Your task to perform on an android device: Do I have any events this weekend? Image 0: 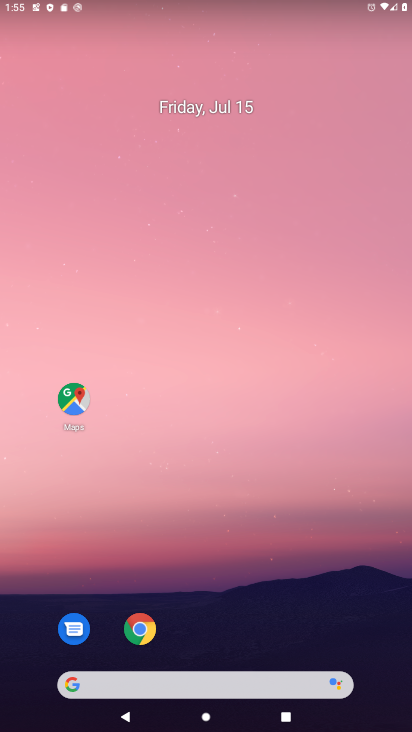
Step 0: drag from (282, 554) to (256, 60)
Your task to perform on an android device: Do I have any events this weekend? Image 1: 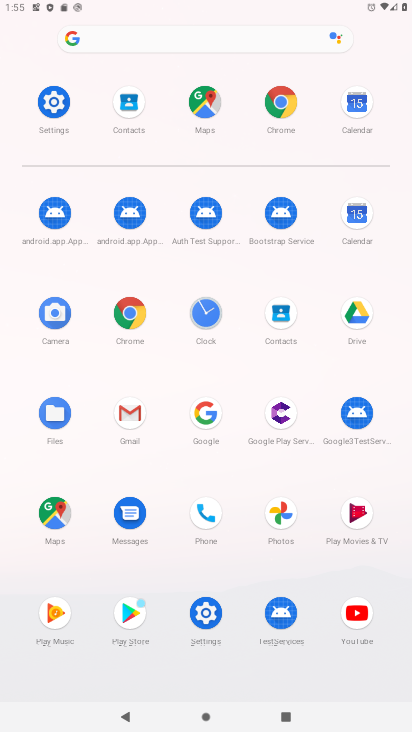
Step 1: click (360, 223)
Your task to perform on an android device: Do I have any events this weekend? Image 2: 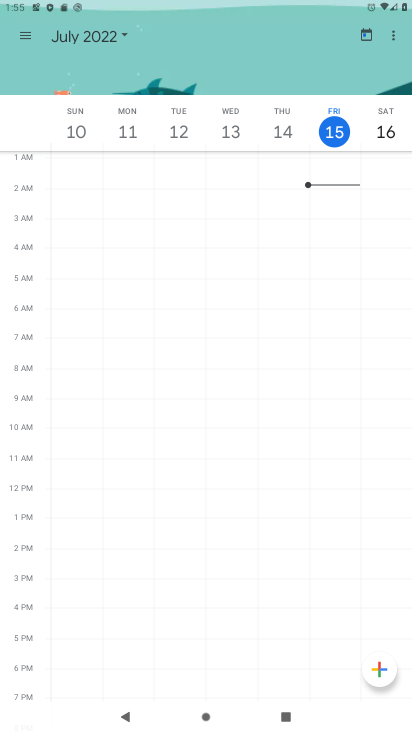
Step 2: click (15, 36)
Your task to perform on an android device: Do I have any events this weekend? Image 3: 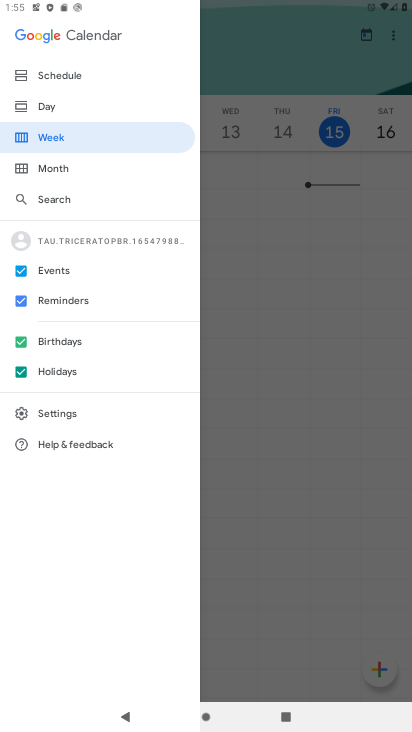
Step 3: click (351, 257)
Your task to perform on an android device: Do I have any events this weekend? Image 4: 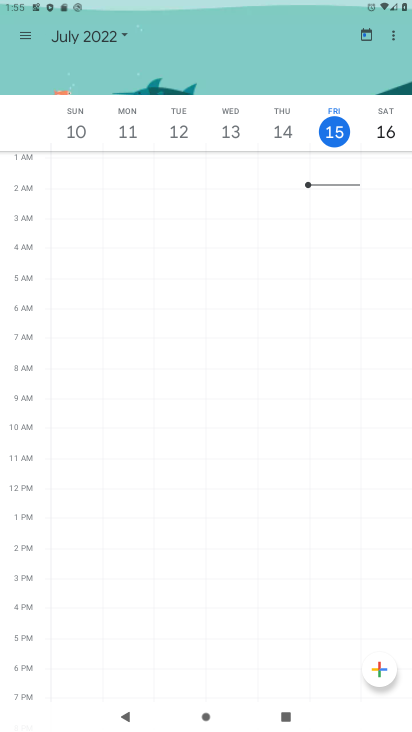
Step 4: task complete